Your task to perform on an android device: find photos in the google photos app Image 0: 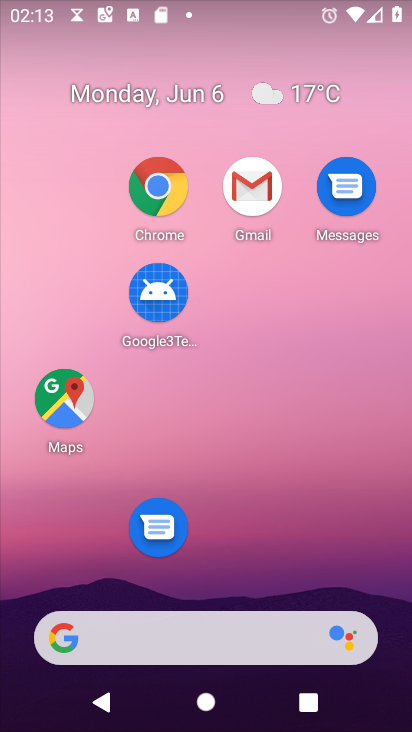
Step 0: drag from (286, 548) to (101, 18)
Your task to perform on an android device: find photos in the google photos app Image 1: 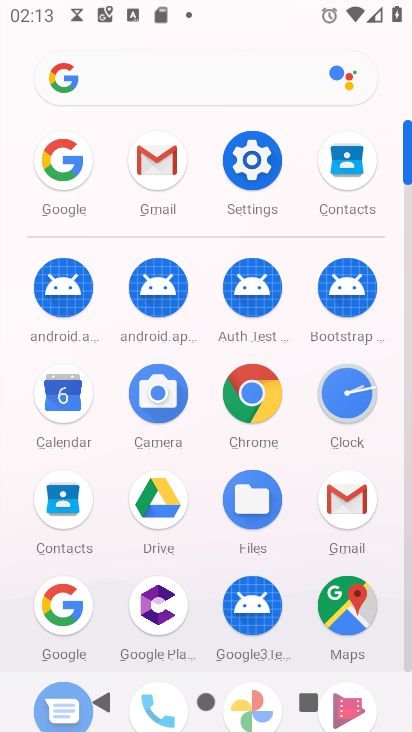
Step 1: drag from (211, 560) to (213, 170)
Your task to perform on an android device: find photos in the google photos app Image 2: 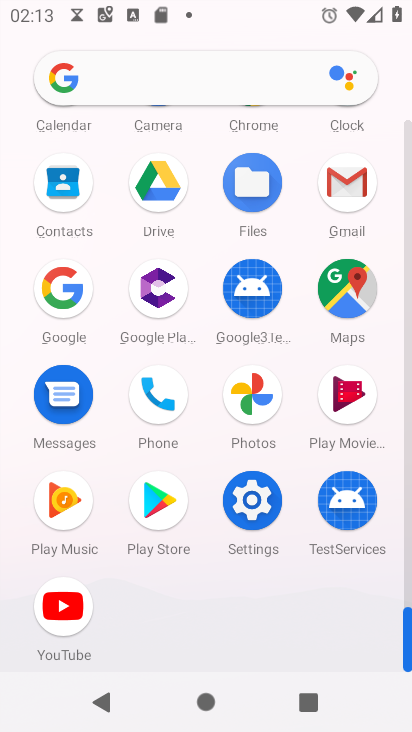
Step 2: click (257, 391)
Your task to perform on an android device: find photos in the google photos app Image 3: 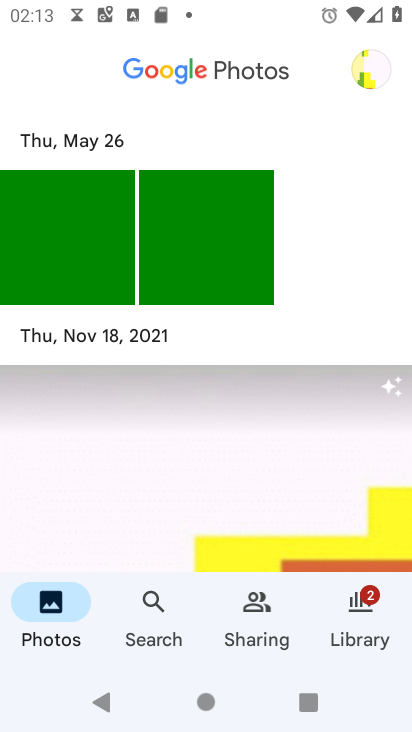
Step 3: task complete